Your task to perform on an android device: see sites visited before in the chrome app Image 0: 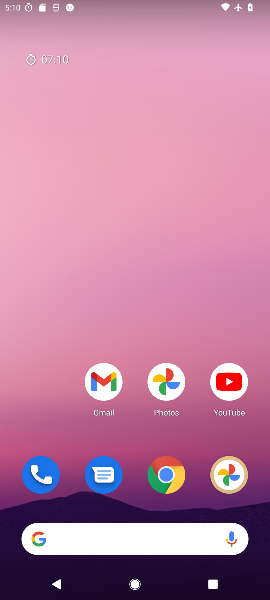
Step 0: press home button
Your task to perform on an android device: see sites visited before in the chrome app Image 1: 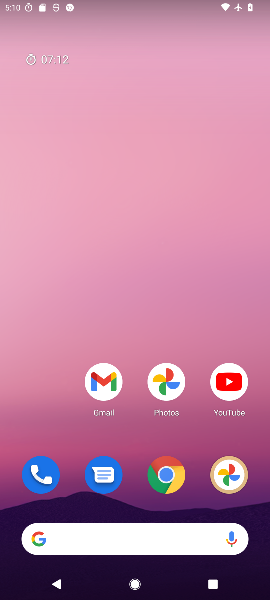
Step 1: drag from (61, 434) to (69, 161)
Your task to perform on an android device: see sites visited before in the chrome app Image 2: 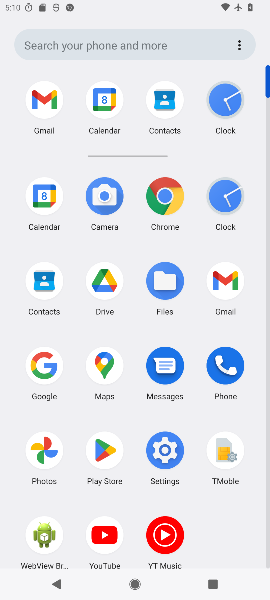
Step 2: click (170, 196)
Your task to perform on an android device: see sites visited before in the chrome app Image 3: 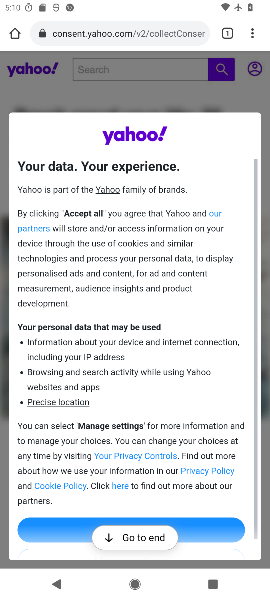
Step 3: click (251, 33)
Your task to perform on an android device: see sites visited before in the chrome app Image 4: 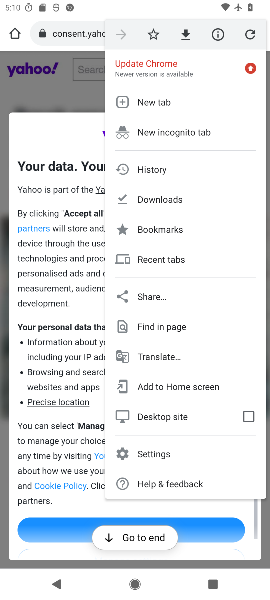
Step 4: click (165, 171)
Your task to perform on an android device: see sites visited before in the chrome app Image 5: 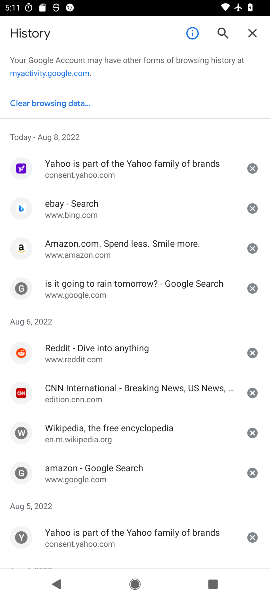
Step 5: task complete